Your task to perform on an android device: toggle location history Image 0: 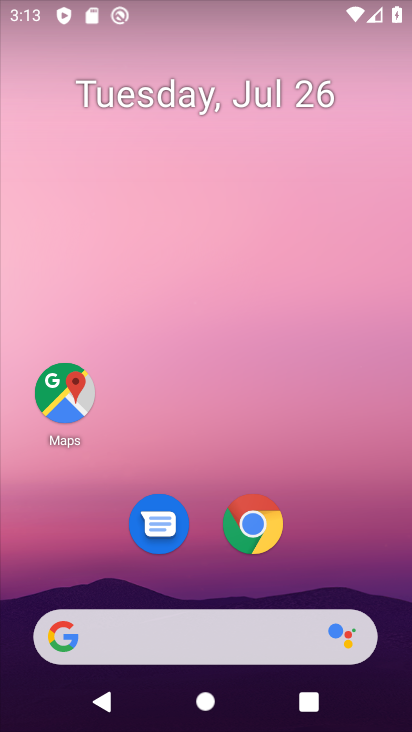
Step 0: drag from (319, 549) to (320, 48)
Your task to perform on an android device: toggle location history Image 1: 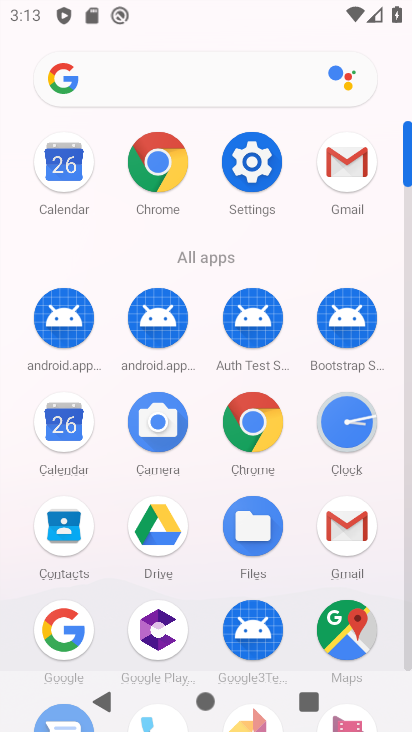
Step 1: click (263, 169)
Your task to perform on an android device: toggle location history Image 2: 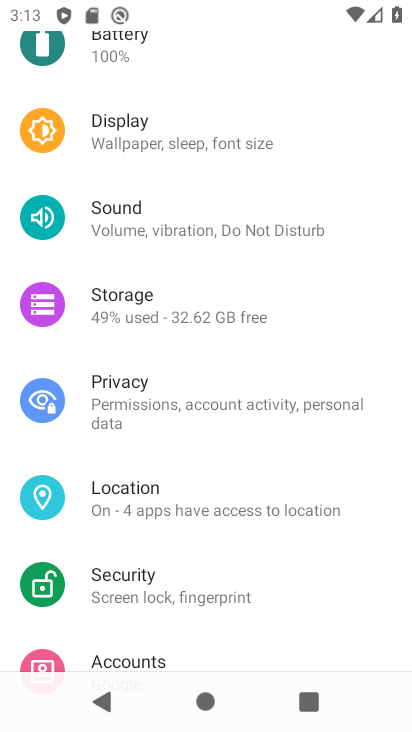
Step 2: click (242, 497)
Your task to perform on an android device: toggle location history Image 3: 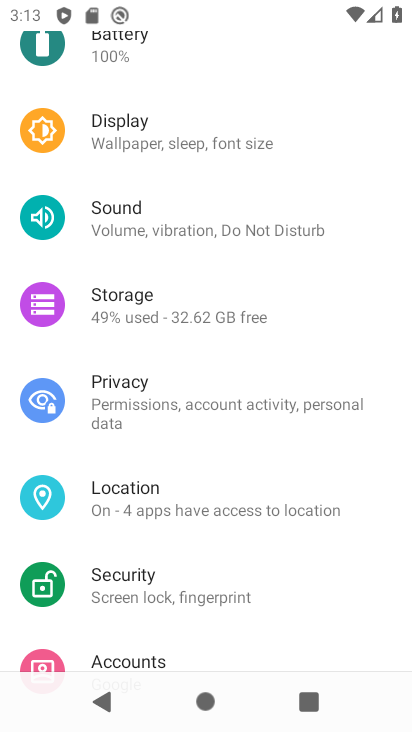
Step 3: click (245, 501)
Your task to perform on an android device: toggle location history Image 4: 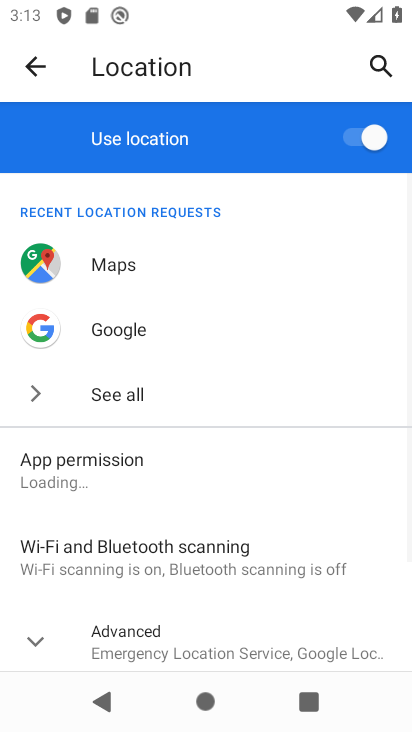
Step 4: drag from (245, 501) to (294, 171)
Your task to perform on an android device: toggle location history Image 5: 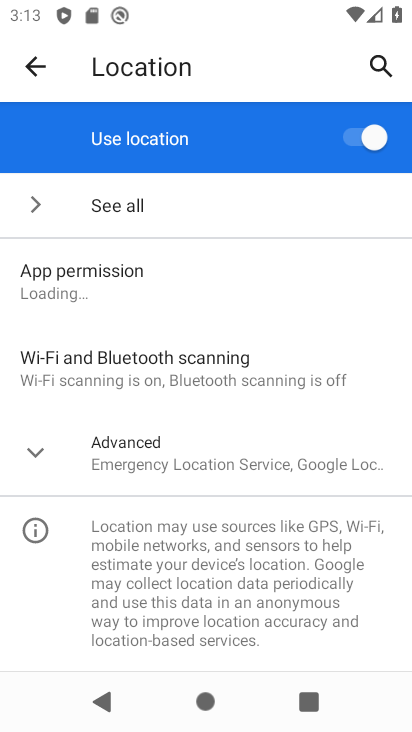
Step 5: click (35, 447)
Your task to perform on an android device: toggle location history Image 6: 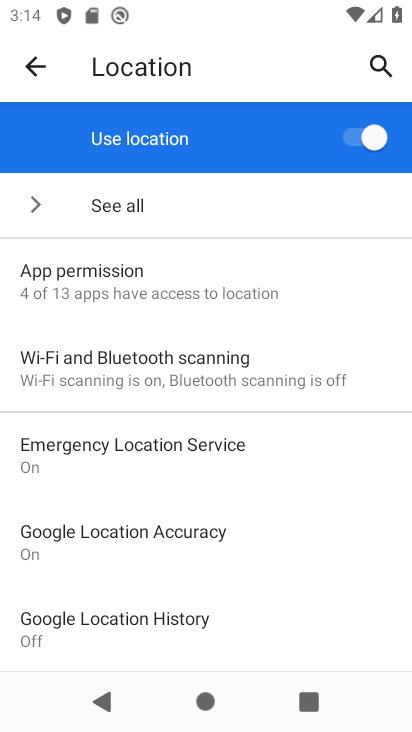
Step 6: click (176, 619)
Your task to perform on an android device: toggle location history Image 7: 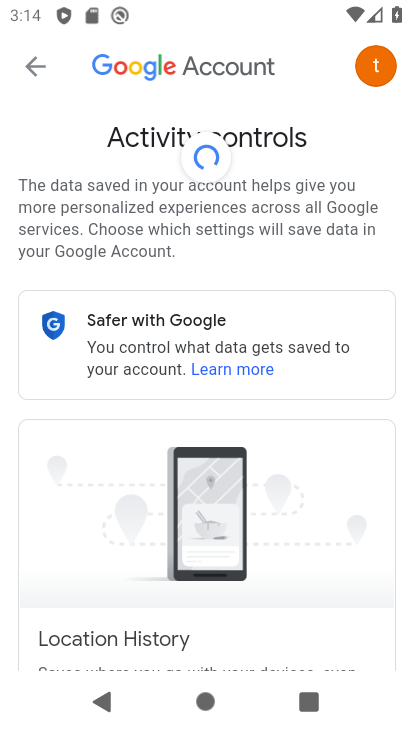
Step 7: drag from (270, 540) to (263, 128)
Your task to perform on an android device: toggle location history Image 8: 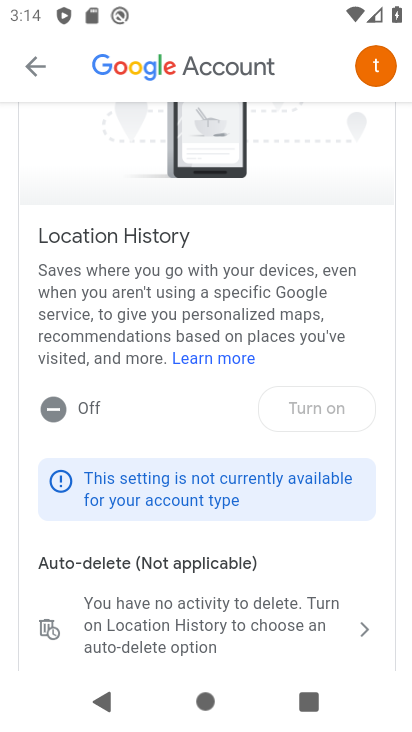
Step 8: click (306, 478)
Your task to perform on an android device: toggle location history Image 9: 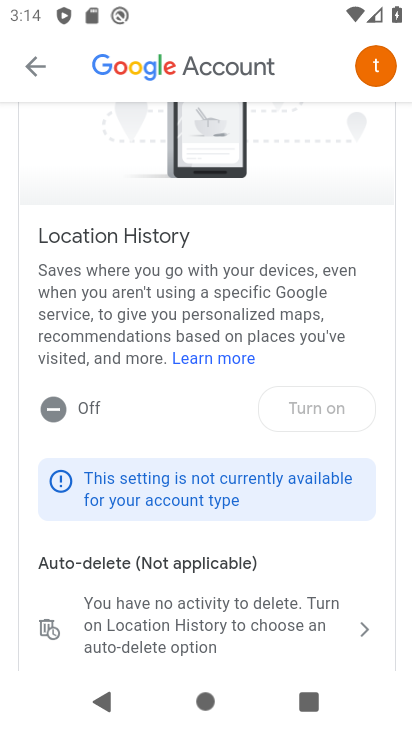
Step 9: click (326, 401)
Your task to perform on an android device: toggle location history Image 10: 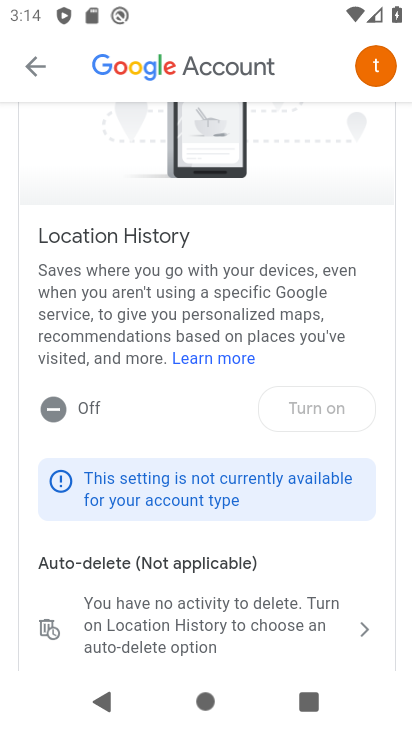
Step 10: drag from (245, 424) to (246, 253)
Your task to perform on an android device: toggle location history Image 11: 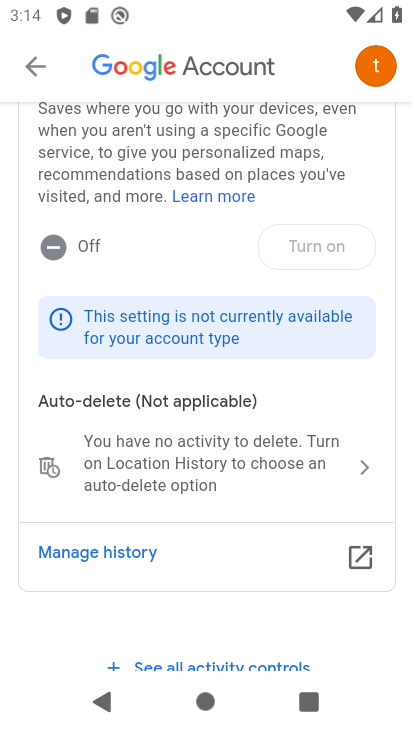
Step 11: drag from (236, 392) to (229, 228)
Your task to perform on an android device: toggle location history Image 12: 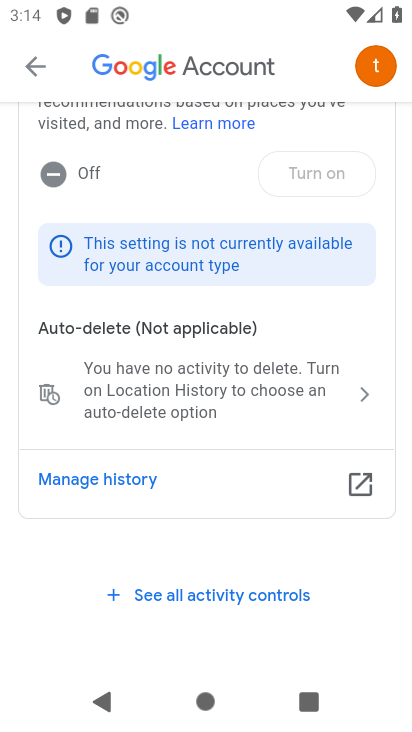
Step 12: click (138, 477)
Your task to perform on an android device: toggle location history Image 13: 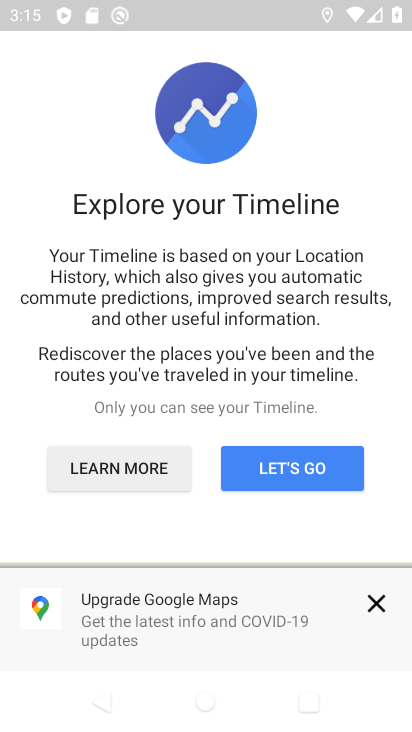
Step 13: click (269, 466)
Your task to perform on an android device: toggle location history Image 14: 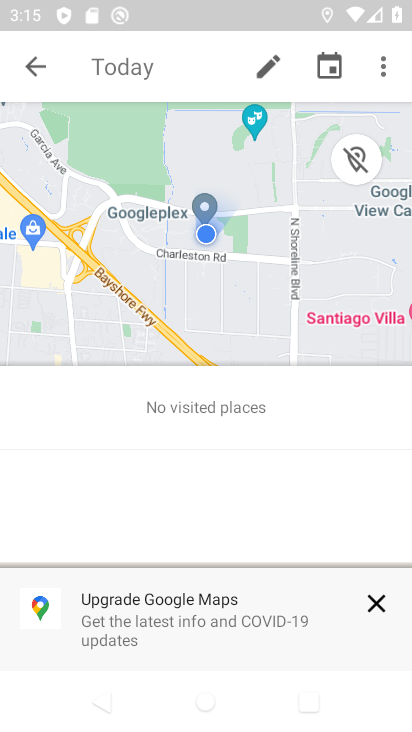
Step 14: press home button
Your task to perform on an android device: toggle location history Image 15: 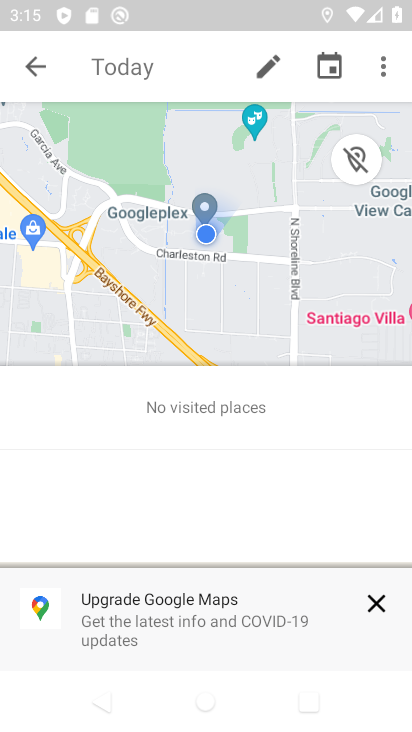
Step 15: press home button
Your task to perform on an android device: toggle location history Image 16: 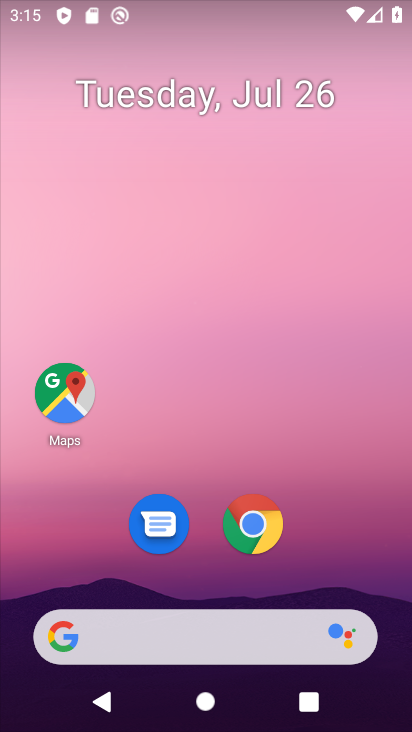
Step 16: drag from (310, 543) to (351, 88)
Your task to perform on an android device: toggle location history Image 17: 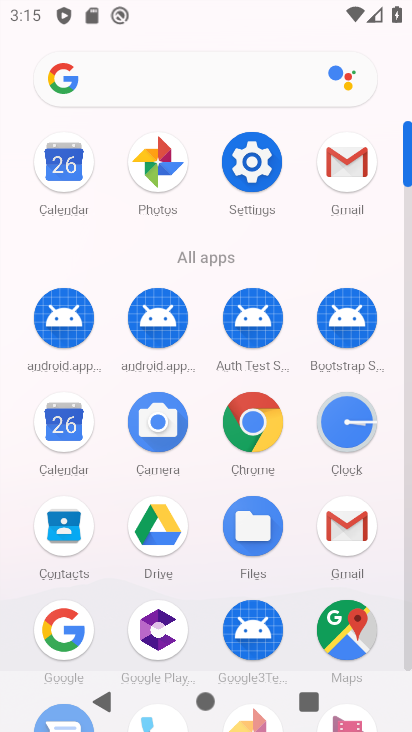
Step 17: click (247, 154)
Your task to perform on an android device: toggle location history Image 18: 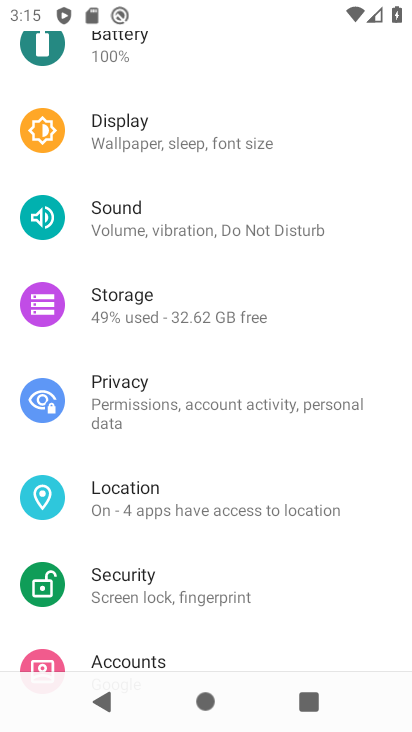
Step 18: click (195, 497)
Your task to perform on an android device: toggle location history Image 19: 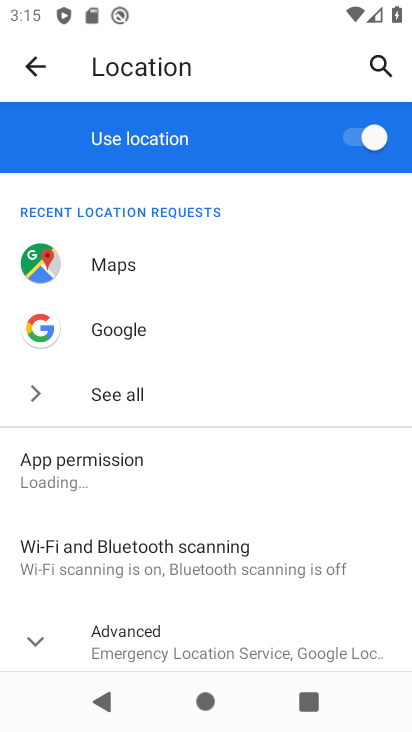
Step 19: click (35, 637)
Your task to perform on an android device: toggle location history Image 20: 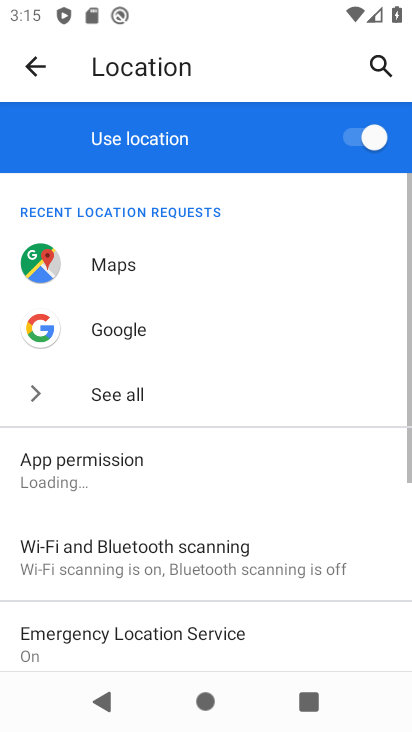
Step 20: drag from (234, 518) to (271, 64)
Your task to perform on an android device: toggle location history Image 21: 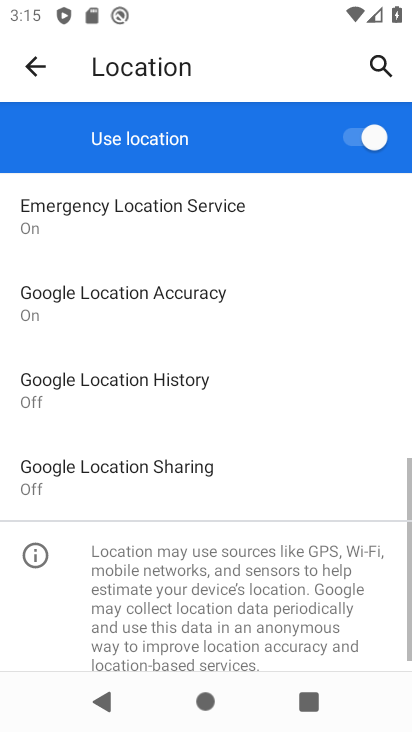
Step 21: click (201, 383)
Your task to perform on an android device: toggle location history Image 22: 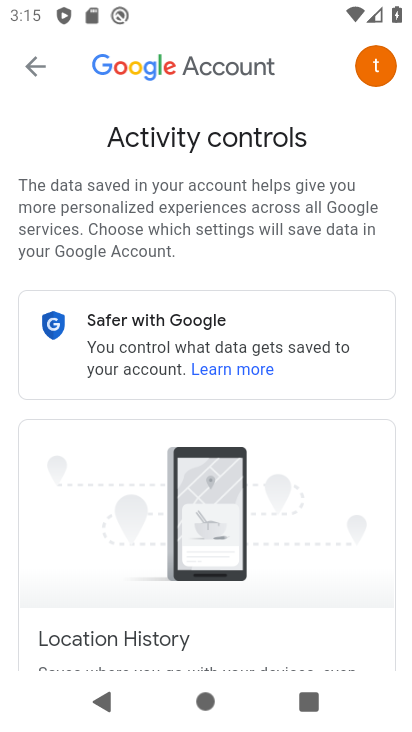
Step 22: task complete